Your task to perform on an android device: Open the map Image 0: 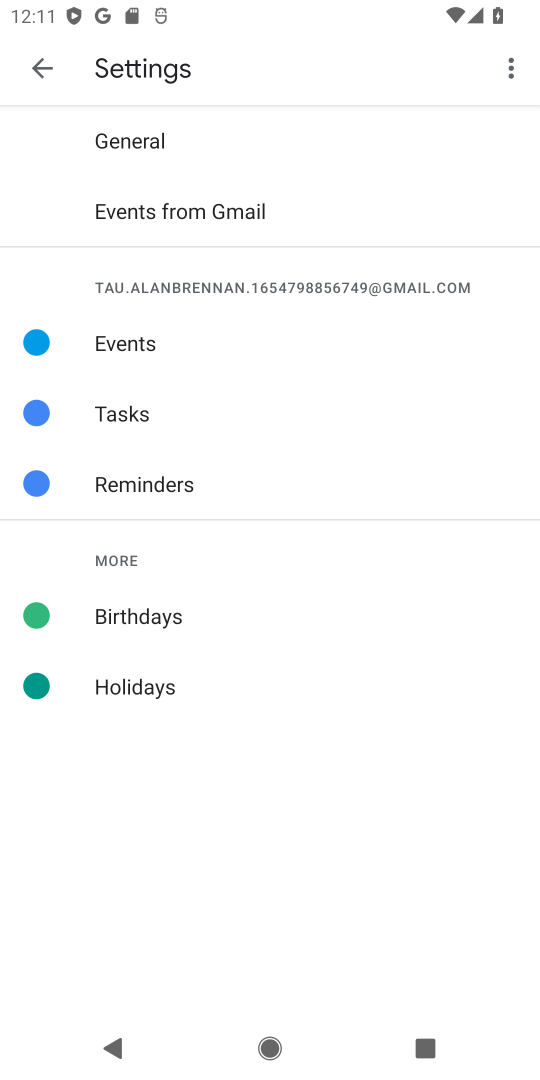
Step 0: press home button
Your task to perform on an android device: Open the map Image 1: 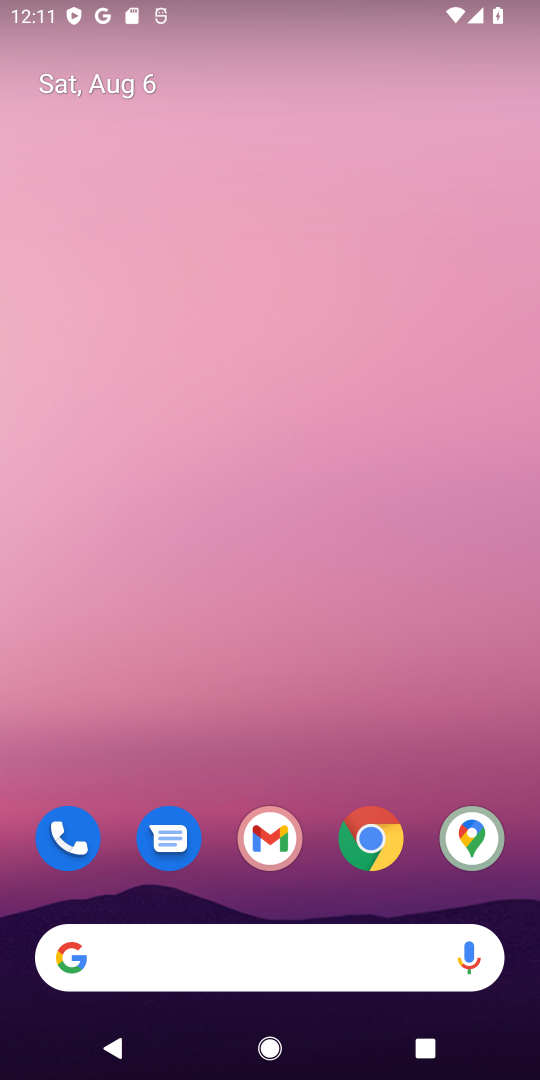
Step 1: click (475, 841)
Your task to perform on an android device: Open the map Image 2: 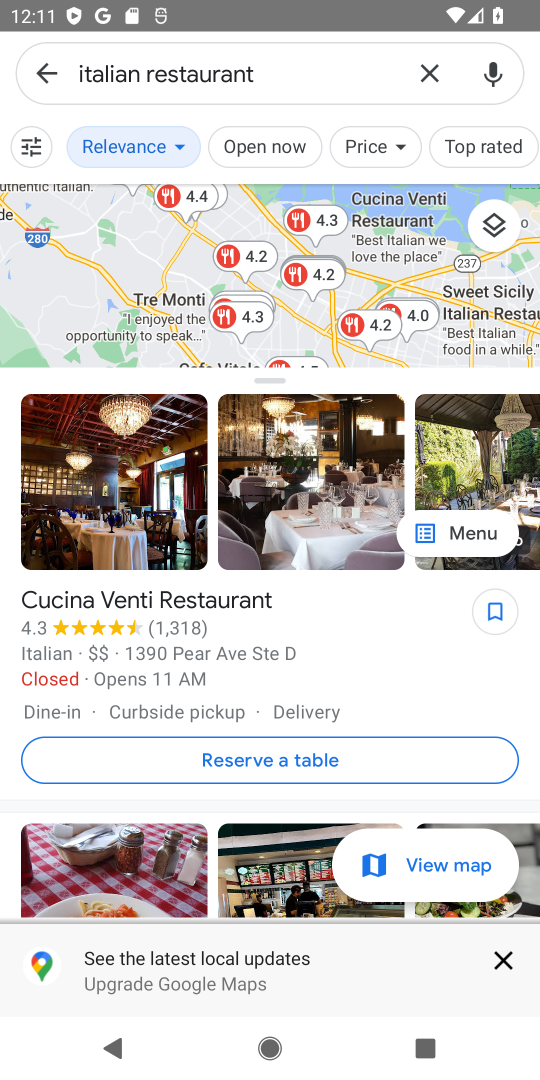
Step 2: task complete